Your task to perform on an android device: Open Chrome and go to settings Image 0: 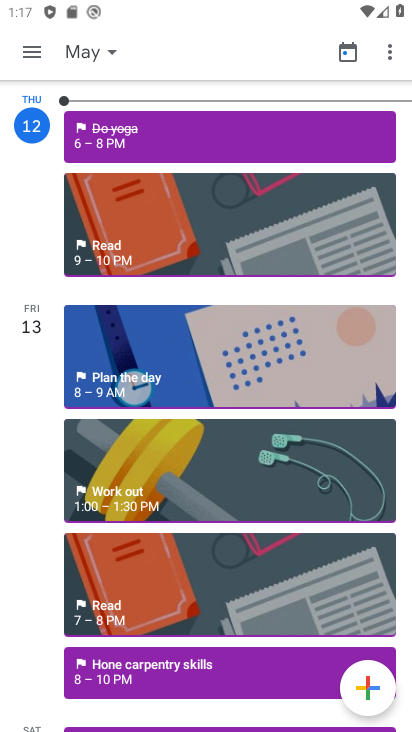
Step 0: press home button
Your task to perform on an android device: Open Chrome and go to settings Image 1: 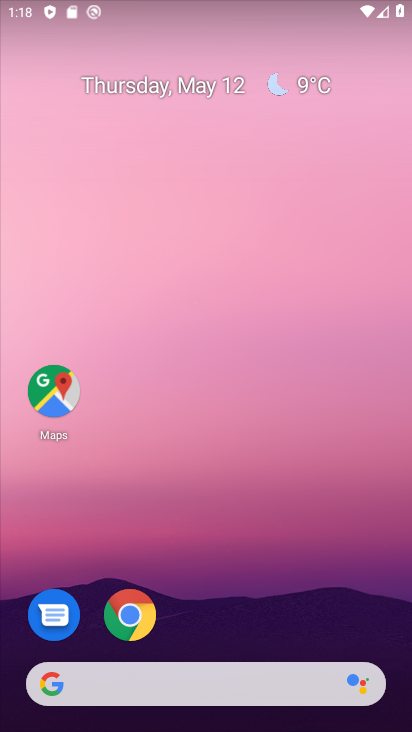
Step 1: click (159, 632)
Your task to perform on an android device: Open Chrome and go to settings Image 2: 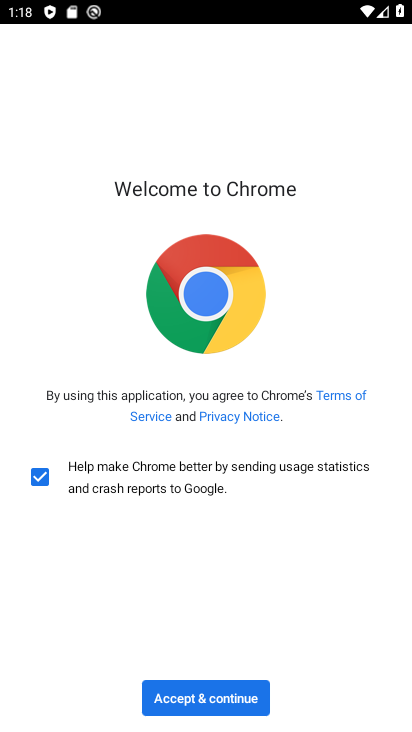
Step 2: click (186, 703)
Your task to perform on an android device: Open Chrome and go to settings Image 3: 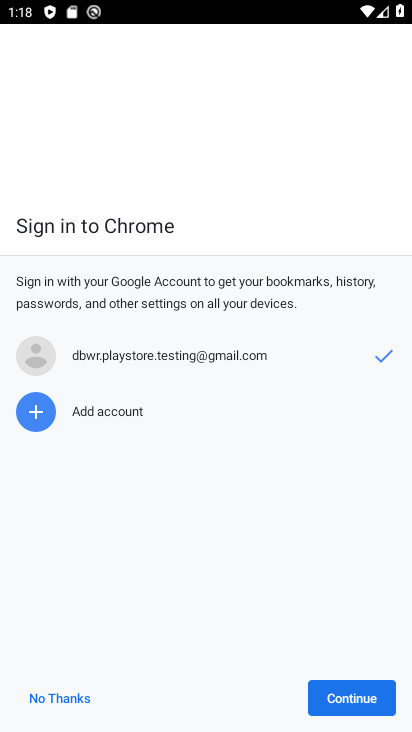
Step 3: click (320, 688)
Your task to perform on an android device: Open Chrome and go to settings Image 4: 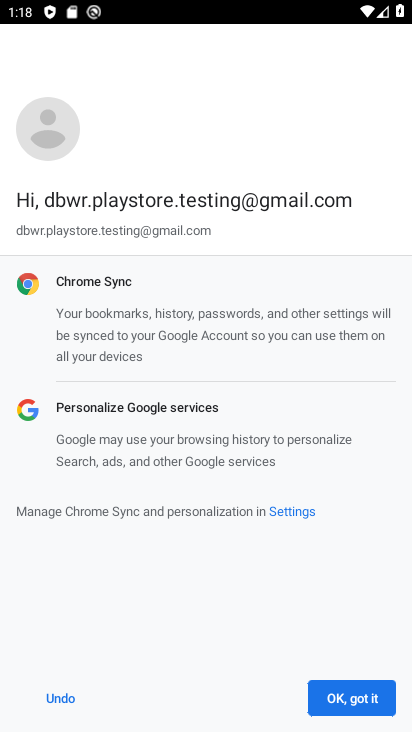
Step 4: click (327, 701)
Your task to perform on an android device: Open Chrome and go to settings Image 5: 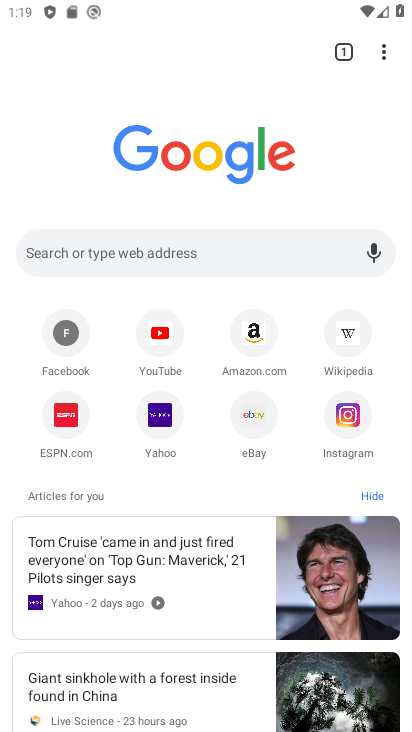
Step 5: task complete